Your task to perform on an android device: allow cookies in the chrome app Image 0: 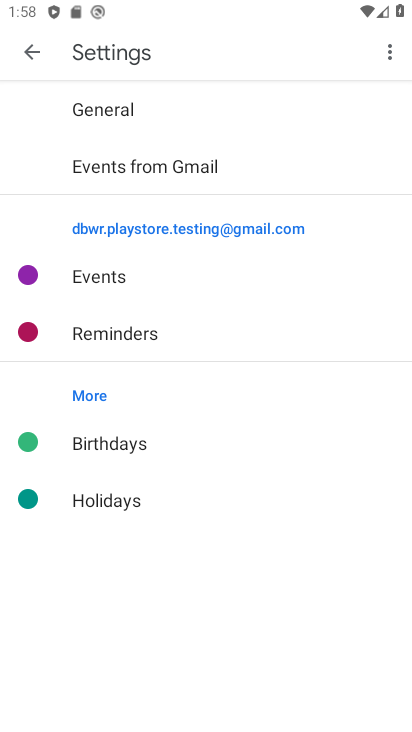
Step 0: press home button
Your task to perform on an android device: allow cookies in the chrome app Image 1: 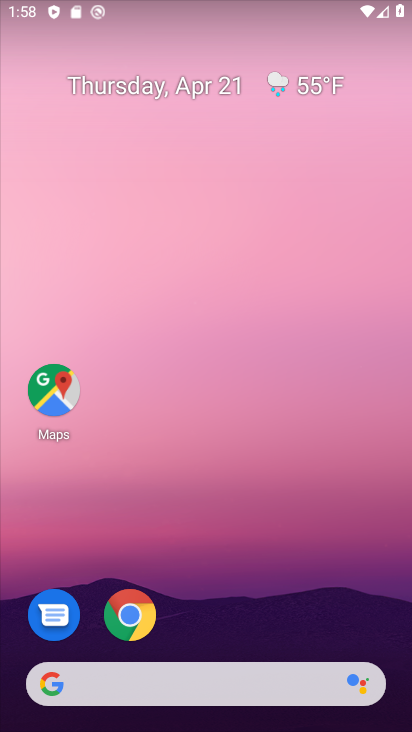
Step 1: click (132, 615)
Your task to perform on an android device: allow cookies in the chrome app Image 2: 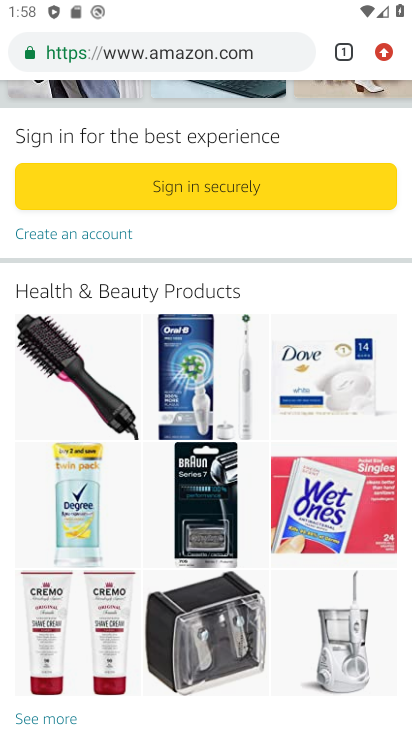
Step 2: click (385, 50)
Your task to perform on an android device: allow cookies in the chrome app Image 3: 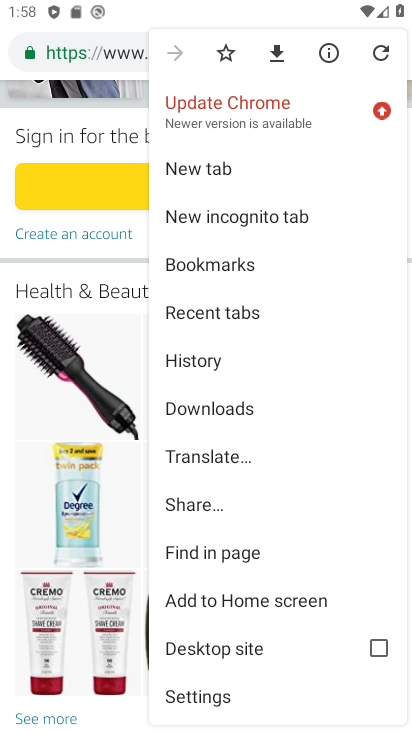
Step 3: click (204, 693)
Your task to perform on an android device: allow cookies in the chrome app Image 4: 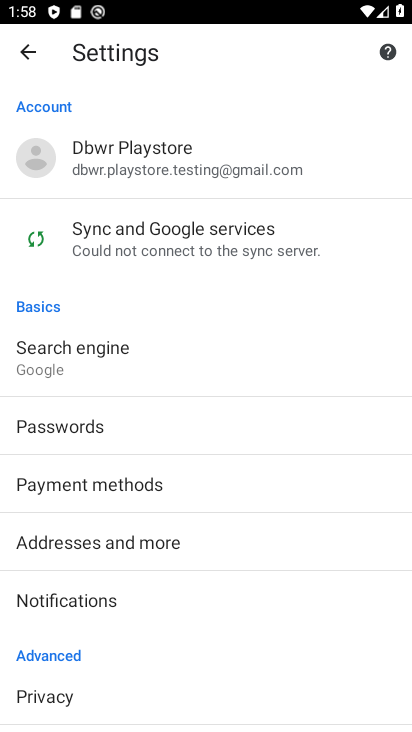
Step 4: drag from (158, 713) to (236, 410)
Your task to perform on an android device: allow cookies in the chrome app Image 5: 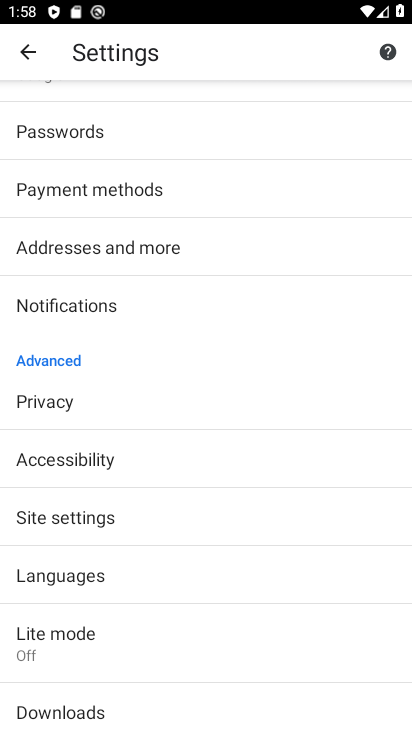
Step 5: click (77, 522)
Your task to perform on an android device: allow cookies in the chrome app Image 6: 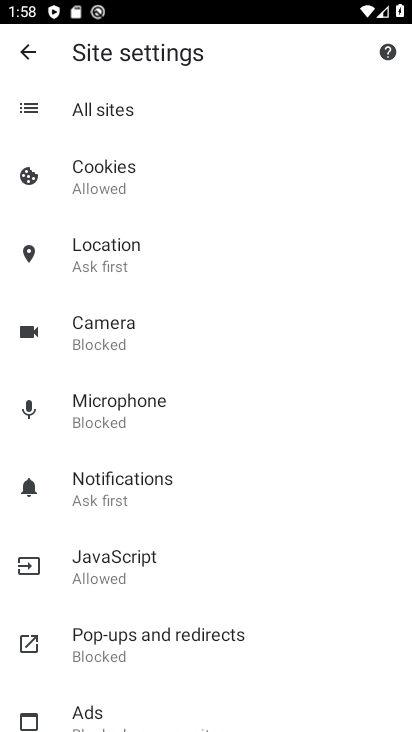
Step 6: click (120, 177)
Your task to perform on an android device: allow cookies in the chrome app Image 7: 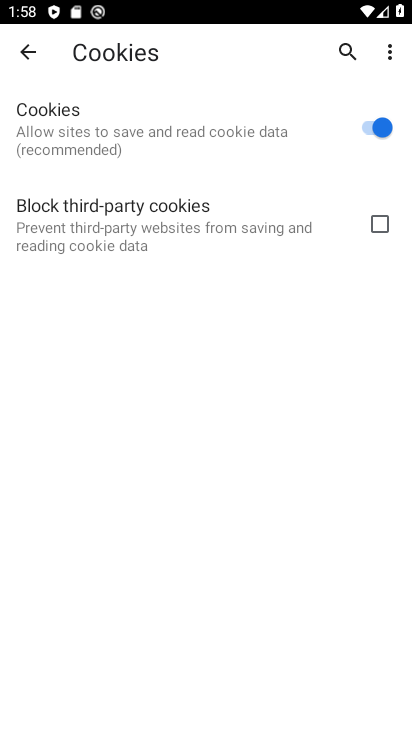
Step 7: task complete